Your task to perform on an android device: open the mobile data screen to see how much data has been used Image 0: 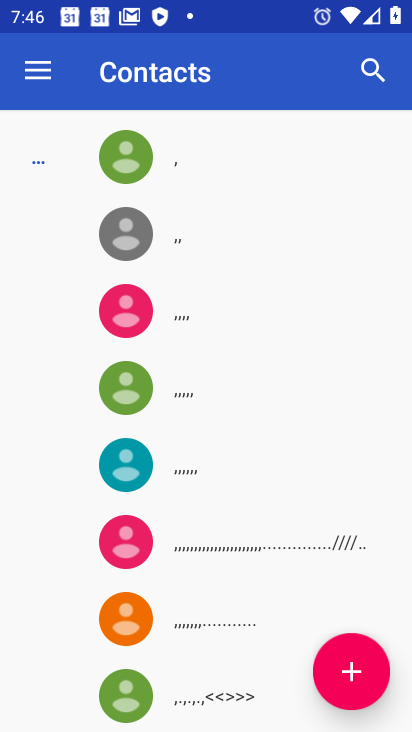
Step 0: drag from (343, 602) to (230, 261)
Your task to perform on an android device: open the mobile data screen to see how much data has been used Image 1: 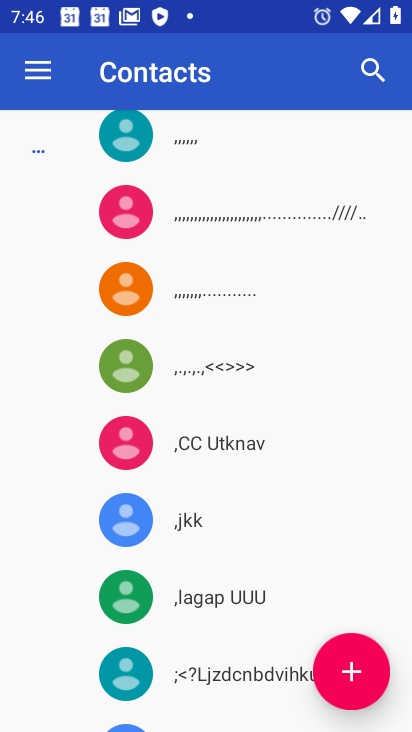
Step 1: press home button
Your task to perform on an android device: open the mobile data screen to see how much data has been used Image 2: 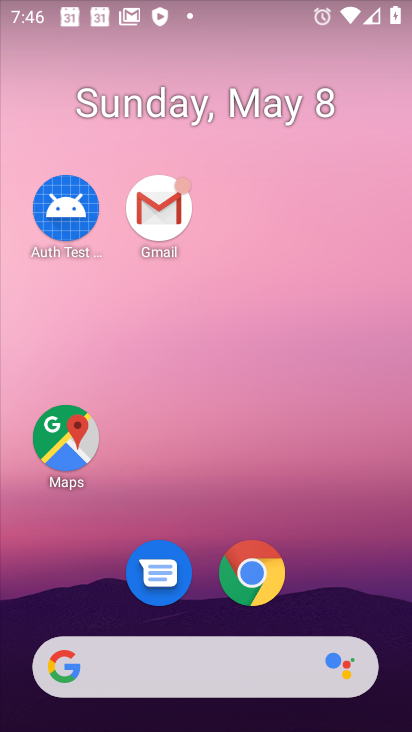
Step 2: drag from (292, 484) to (80, 4)
Your task to perform on an android device: open the mobile data screen to see how much data has been used Image 3: 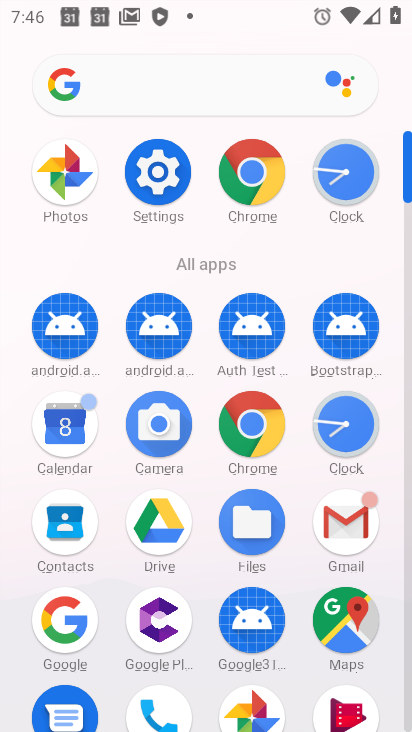
Step 3: click (150, 175)
Your task to perform on an android device: open the mobile data screen to see how much data has been used Image 4: 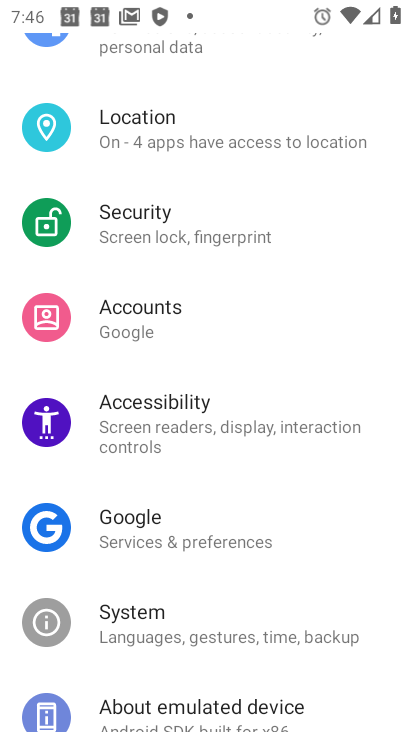
Step 4: click (164, 167)
Your task to perform on an android device: open the mobile data screen to see how much data has been used Image 5: 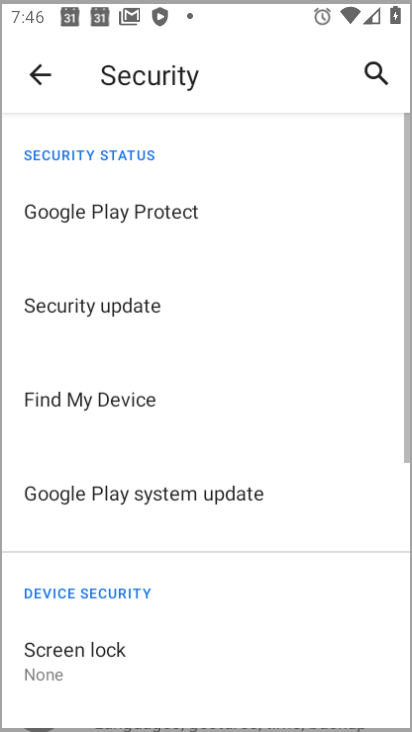
Step 5: drag from (172, 156) to (241, 493)
Your task to perform on an android device: open the mobile data screen to see how much data has been used Image 6: 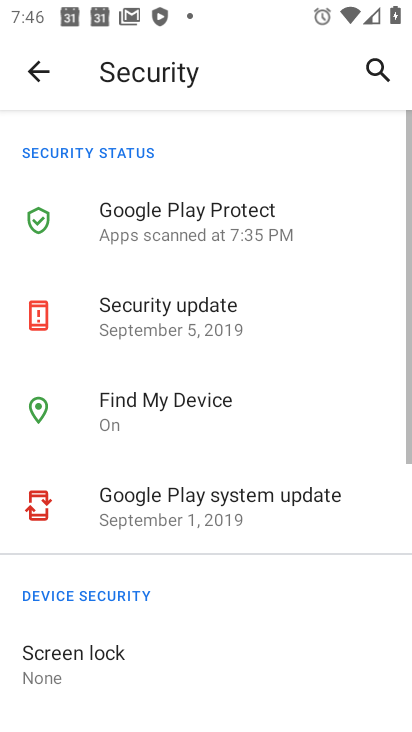
Step 6: click (33, 68)
Your task to perform on an android device: open the mobile data screen to see how much data has been used Image 7: 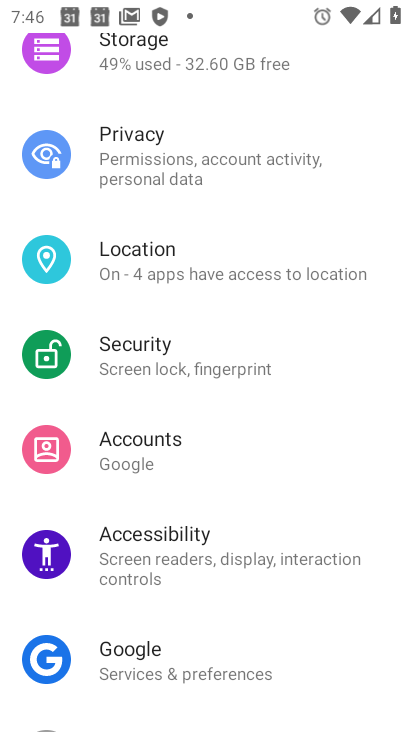
Step 7: drag from (199, 127) to (300, 707)
Your task to perform on an android device: open the mobile data screen to see how much data has been used Image 8: 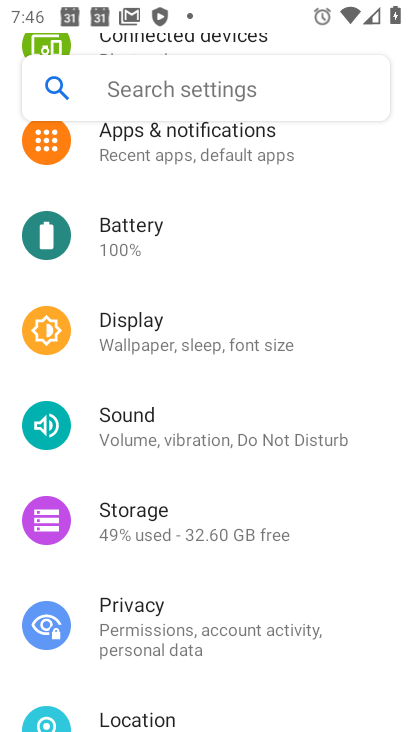
Step 8: drag from (210, 567) to (234, 664)
Your task to perform on an android device: open the mobile data screen to see how much data has been used Image 9: 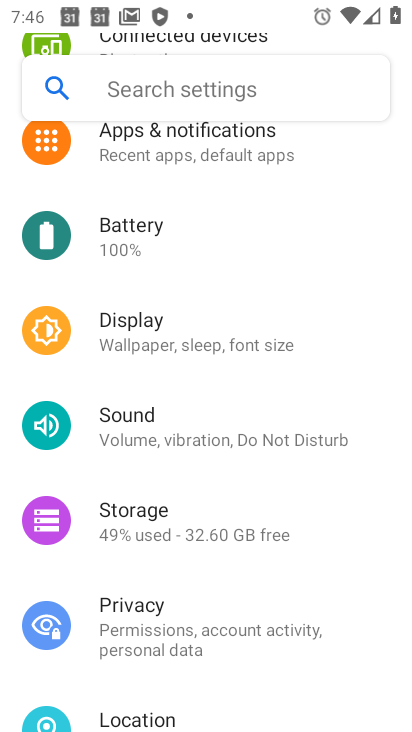
Step 9: drag from (200, 192) to (209, 571)
Your task to perform on an android device: open the mobile data screen to see how much data has been used Image 10: 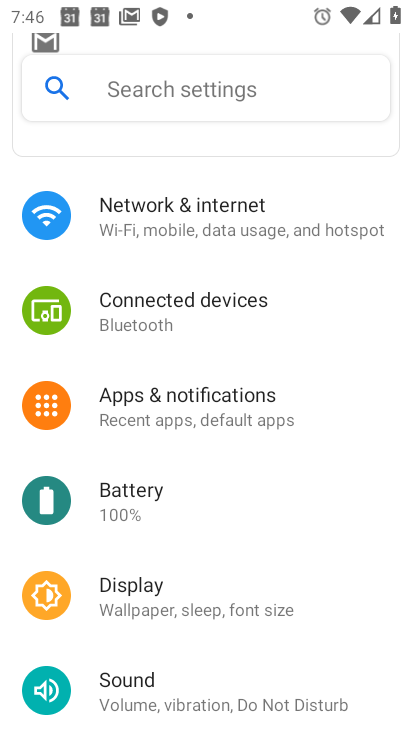
Step 10: drag from (198, 202) to (196, 616)
Your task to perform on an android device: open the mobile data screen to see how much data has been used Image 11: 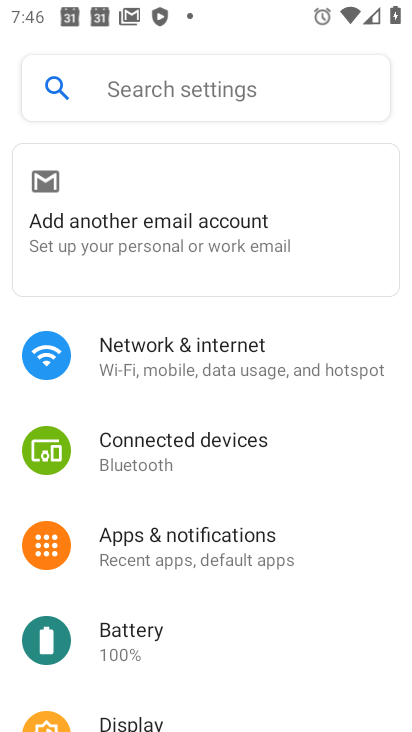
Step 11: click (207, 349)
Your task to perform on an android device: open the mobile data screen to see how much data has been used Image 12: 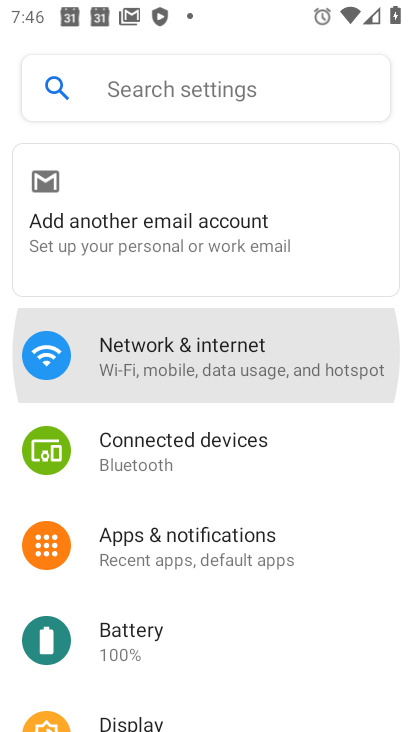
Step 12: click (207, 349)
Your task to perform on an android device: open the mobile data screen to see how much data has been used Image 13: 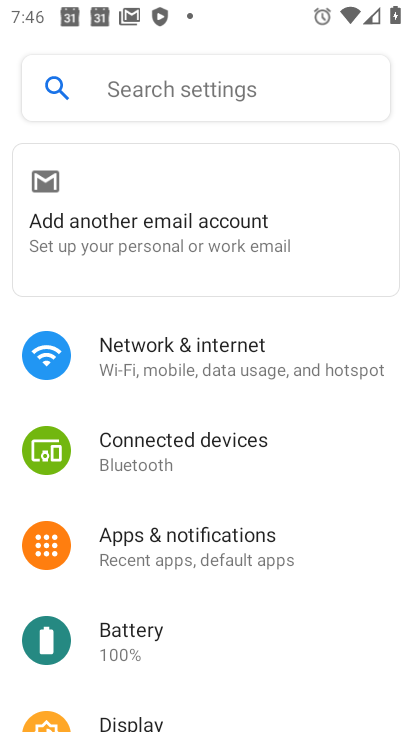
Step 13: click (209, 365)
Your task to perform on an android device: open the mobile data screen to see how much data has been used Image 14: 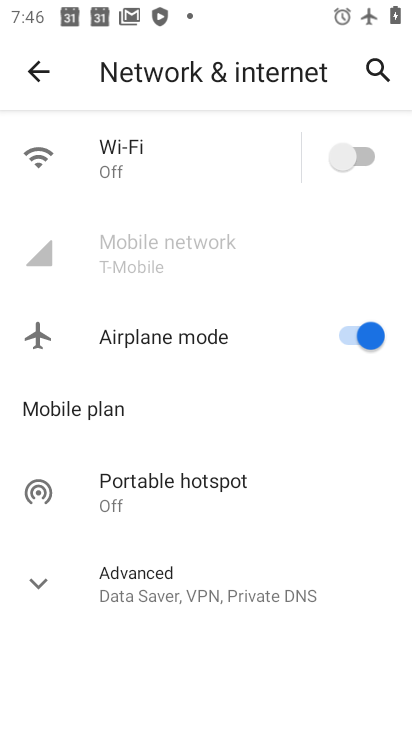
Step 14: task complete